Your task to perform on an android device: find snoozed emails in the gmail app Image 0: 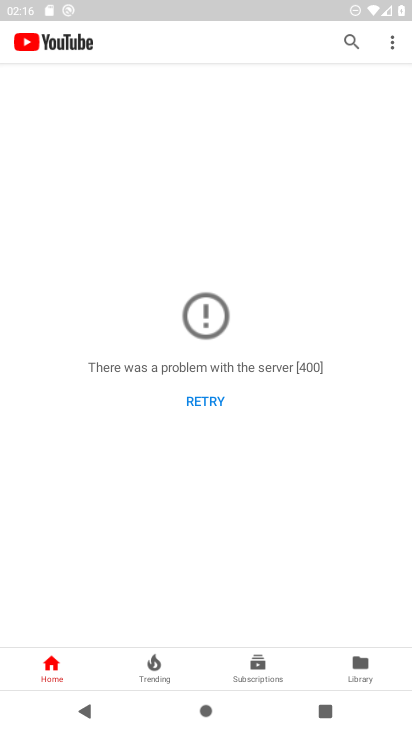
Step 0: press home button
Your task to perform on an android device: find snoozed emails in the gmail app Image 1: 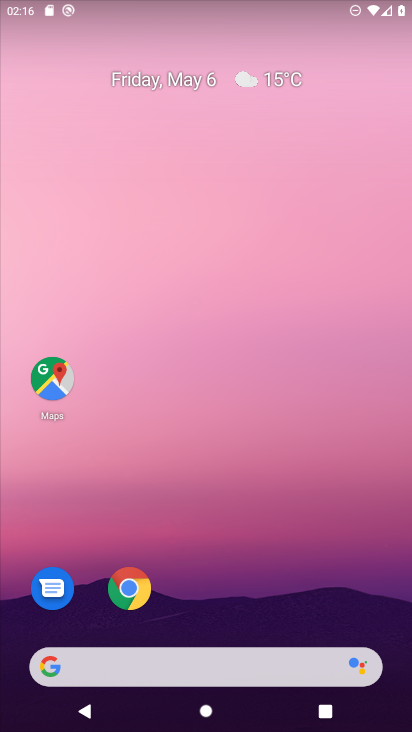
Step 1: drag from (231, 629) to (99, 25)
Your task to perform on an android device: find snoozed emails in the gmail app Image 2: 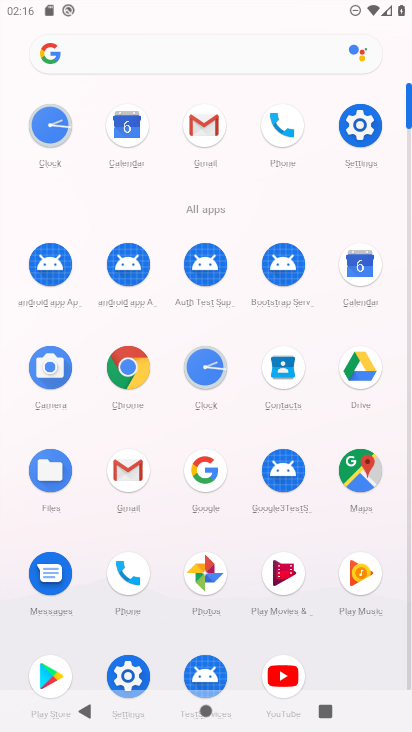
Step 2: click (121, 455)
Your task to perform on an android device: find snoozed emails in the gmail app Image 3: 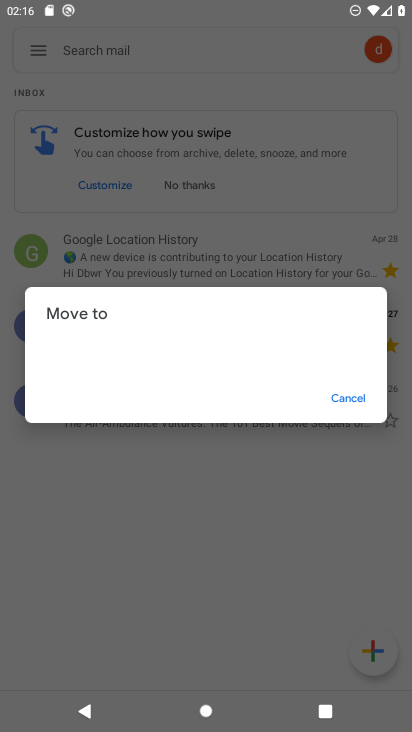
Step 3: click (333, 398)
Your task to perform on an android device: find snoozed emails in the gmail app Image 4: 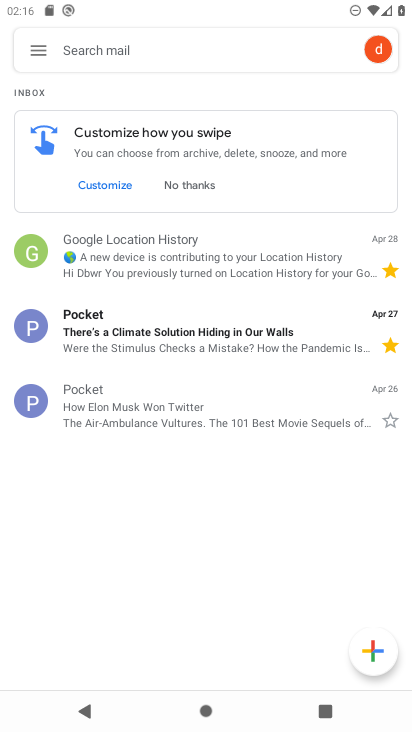
Step 4: click (27, 46)
Your task to perform on an android device: find snoozed emails in the gmail app Image 5: 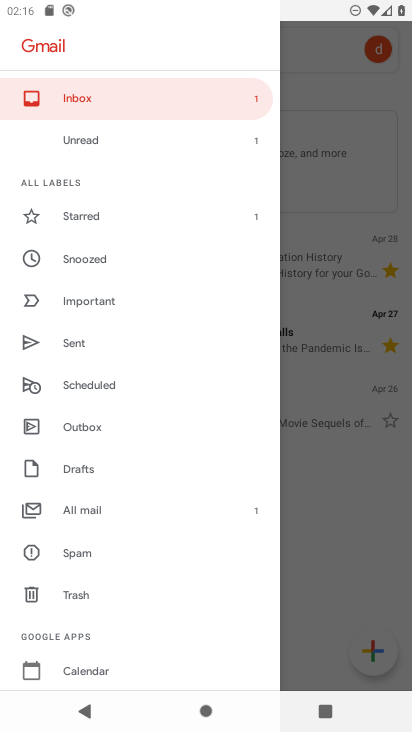
Step 5: click (78, 266)
Your task to perform on an android device: find snoozed emails in the gmail app Image 6: 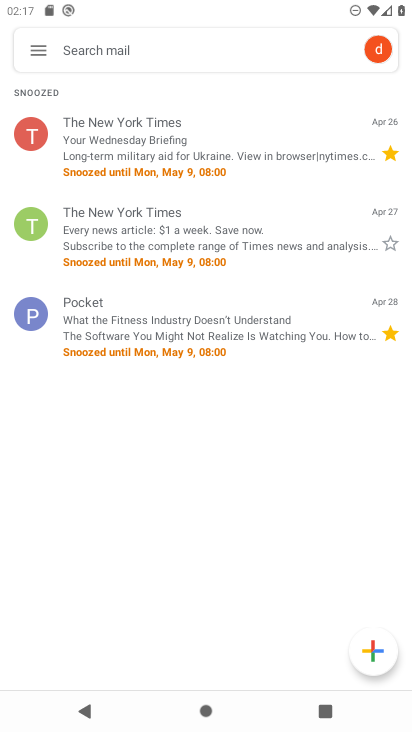
Step 6: task complete